Your task to perform on an android device: add a label to a message in the gmail app Image 0: 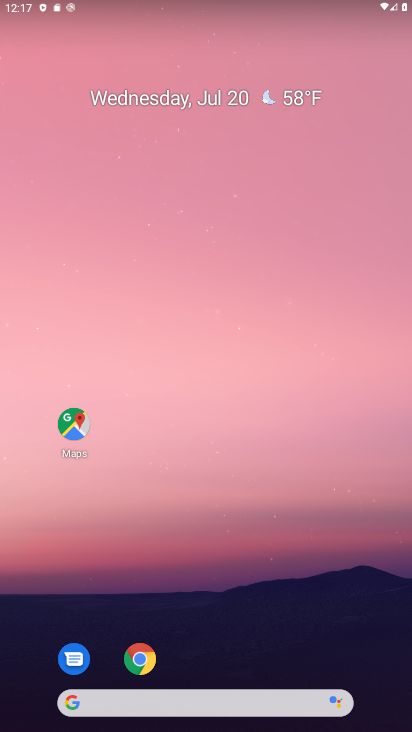
Step 0: drag from (221, 667) to (235, 62)
Your task to perform on an android device: add a label to a message in the gmail app Image 1: 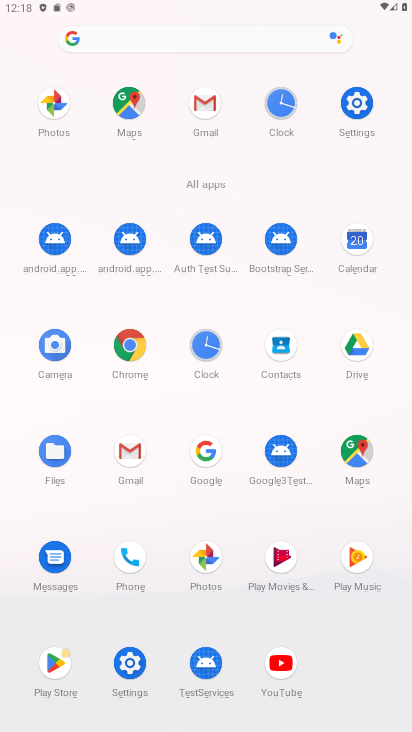
Step 1: click (199, 98)
Your task to perform on an android device: add a label to a message in the gmail app Image 2: 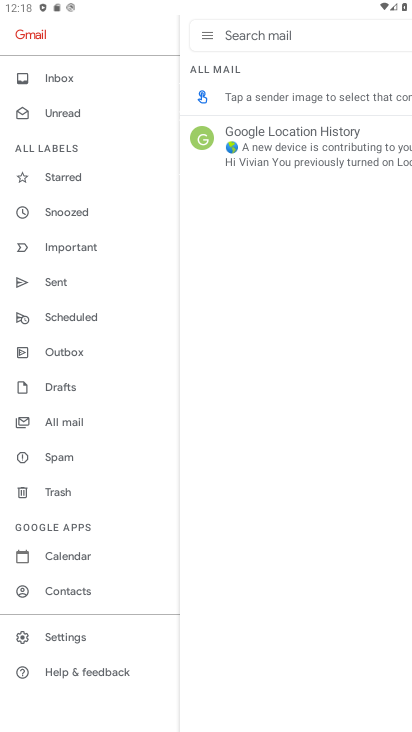
Step 2: click (197, 130)
Your task to perform on an android device: add a label to a message in the gmail app Image 3: 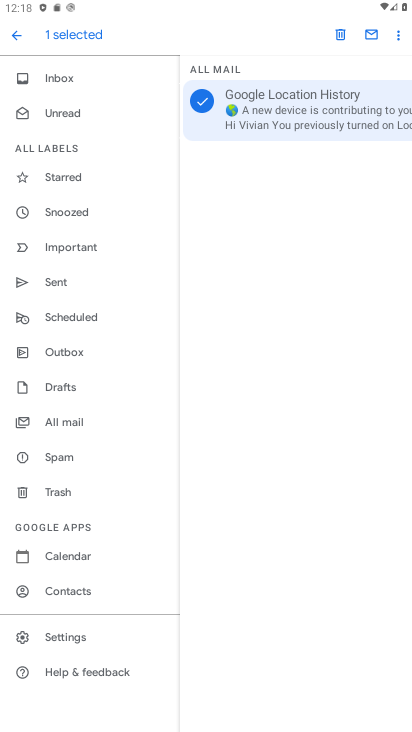
Step 3: click (396, 31)
Your task to perform on an android device: add a label to a message in the gmail app Image 4: 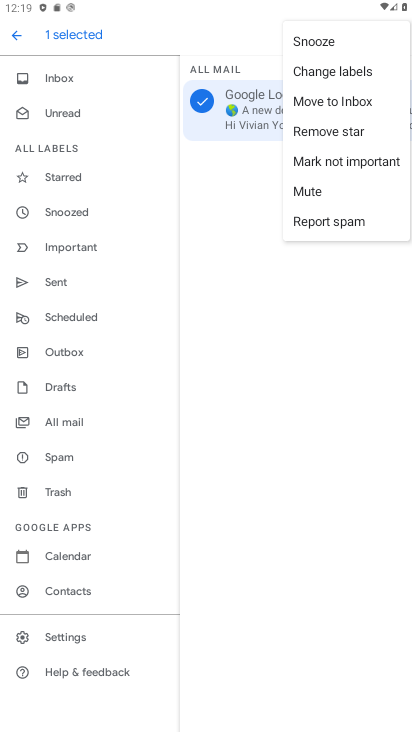
Step 4: click (337, 71)
Your task to perform on an android device: add a label to a message in the gmail app Image 5: 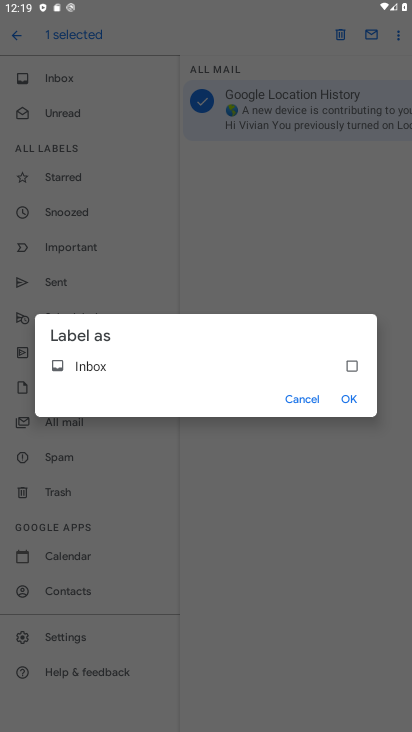
Step 5: click (350, 362)
Your task to perform on an android device: add a label to a message in the gmail app Image 6: 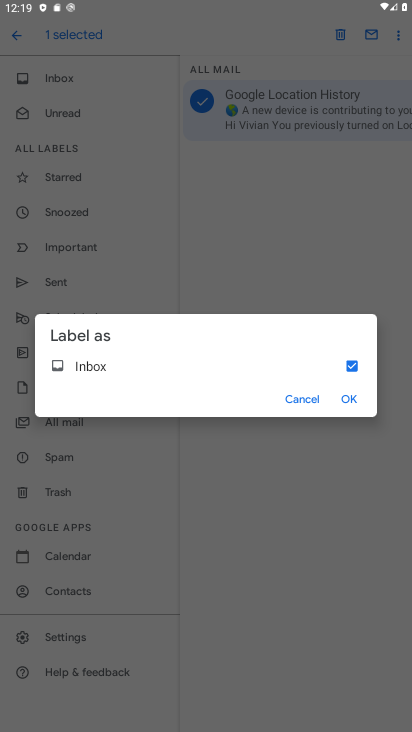
Step 6: click (348, 400)
Your task to perform on an android device: add a label to a message in the gmail app Image 7: 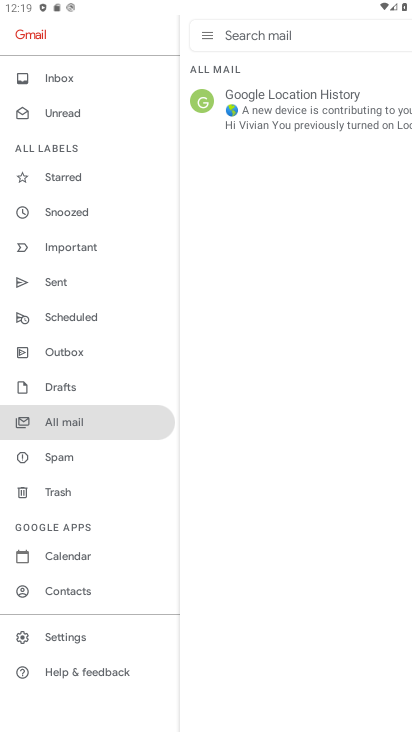
Step 7: task complete